Your task to perform on an android device: add a label to a message in the gmail app Image 0: 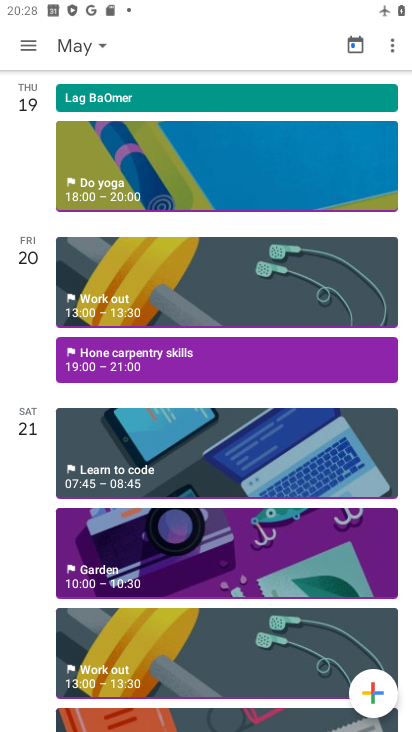
Step 0: press home button
Your task to perform on an android device: add a label to a message in the gmail app Image 1: 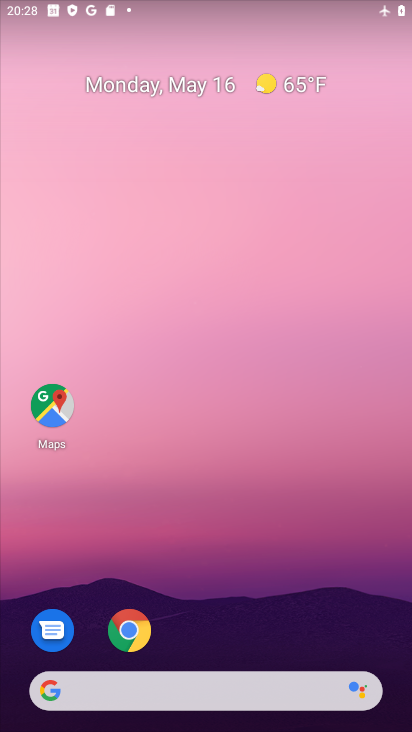
Step 1: drag from (191, 639) to (190, 238)
Your task to perform on an android device: add a label to a message in the gmail app Image 2: 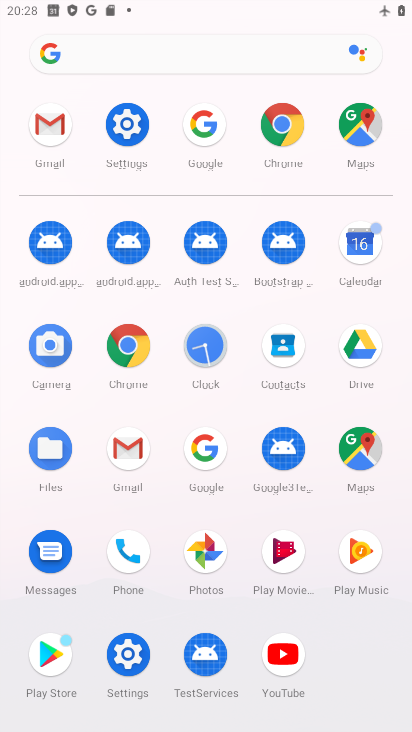
Step 2: click (56, 123)
Your task to perform on an android device: add a label to a message in the gmail app Image 3: 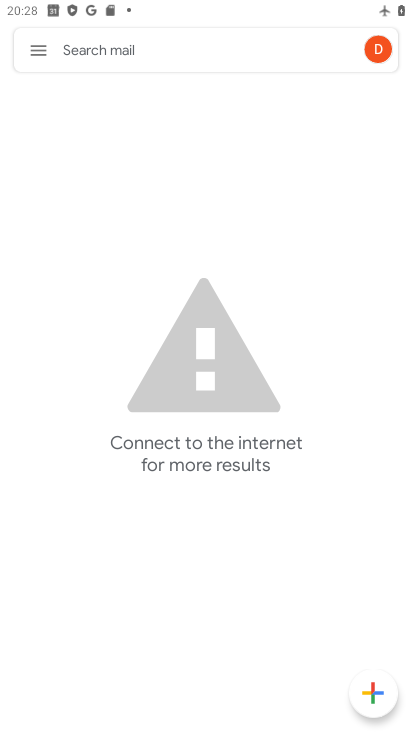
Step 3: click (38, 58)
Your task to perform on an android device: add a label to a message in the gmail app Image 4: 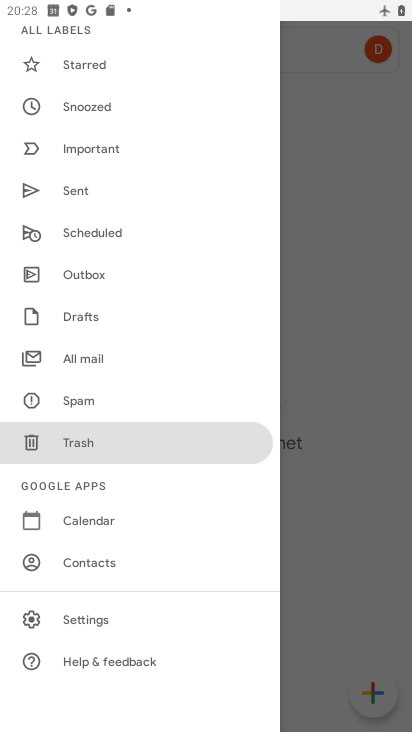
Step 4: drag from (105, 133) to (62, 489)
Your task to perform on an android device: add a label to a message in the gmail app Image 5: 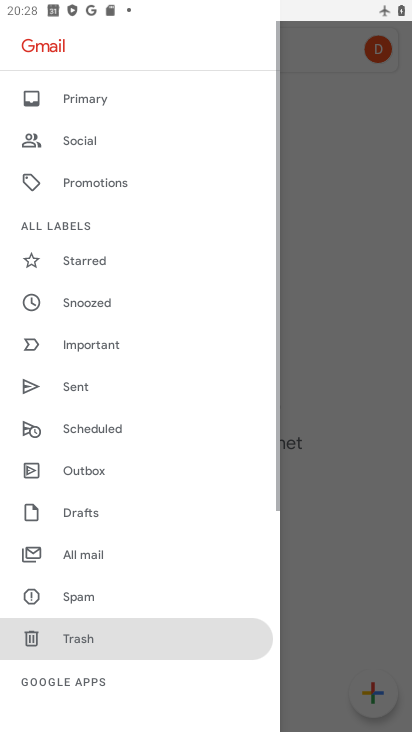
Step 5: drag from (99, 178) to (100, 433)
Your task to perform on an android device: add a label to a message in the gmail app Image 6: 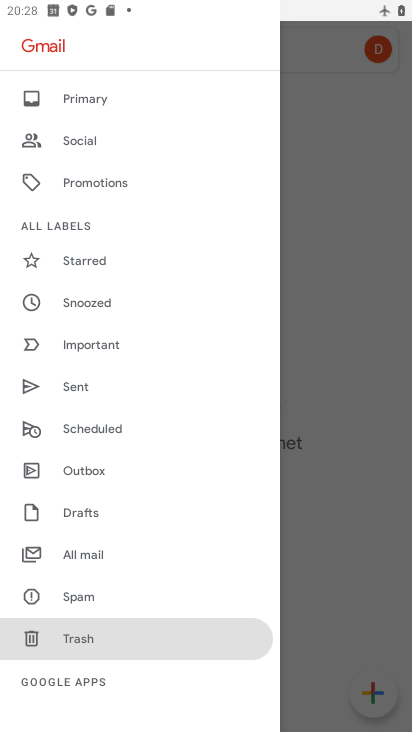
Step 6: click (87, 556)
Your task to perform on an android device: add a label to a message in the gmail app Image 7: 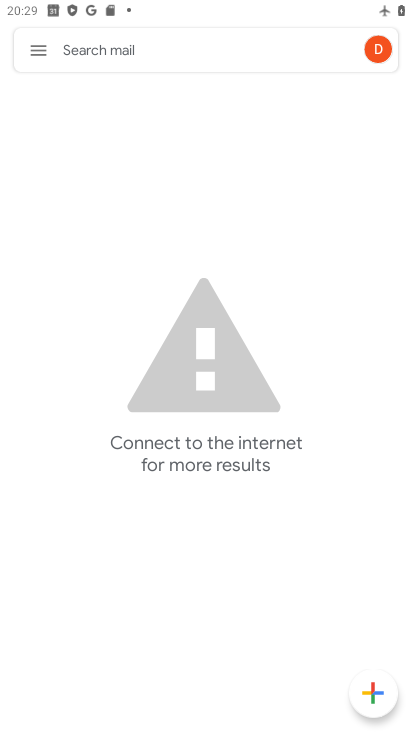
Step 7: click (28, 56)
Your task to perform on an android device: add a label to a message in the gmail app Image 8: 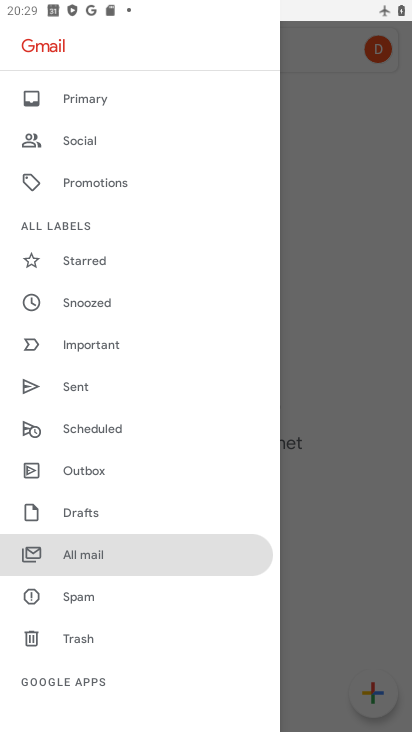
Step 8: drag from (115, 607) to (183, 246)
Your task to perform on an android device: add a label to a message in the gmail app Image 9: 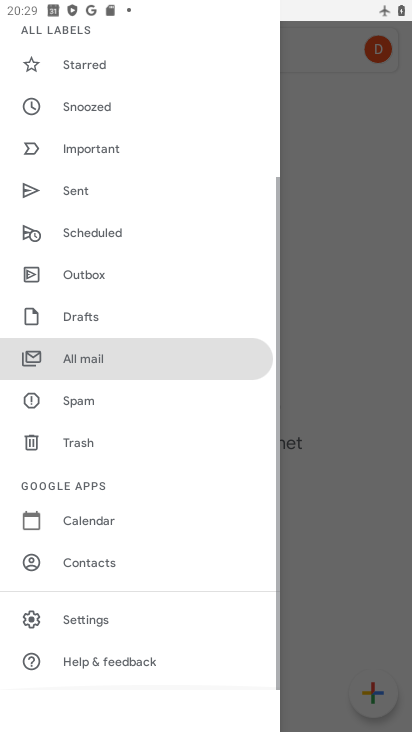
Step 9: drag from (123, 492) to (168, 241)
Your task to perform on an android device: add a label to a message in the gmail app Image 10: 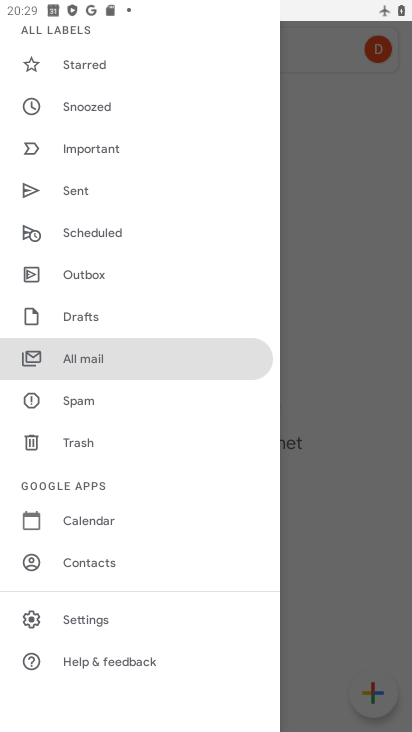
Step 10: click (94, 351)
Your task to perform on an android device: add a label to a message in the gmail app Image 11: 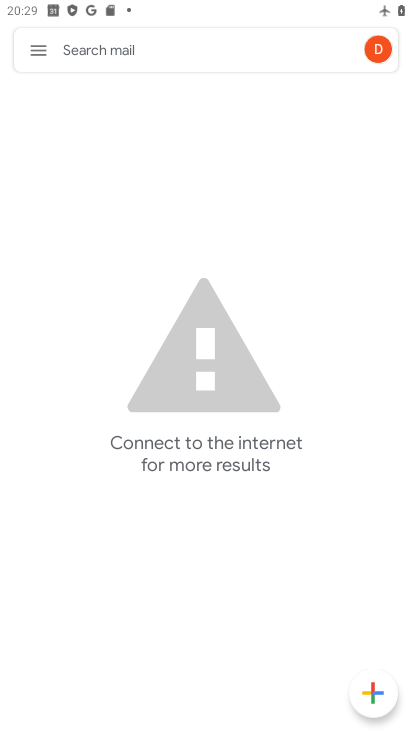
Step 11: task complete